Your task to perform on an android device: Go to accessibility settings Image 0: 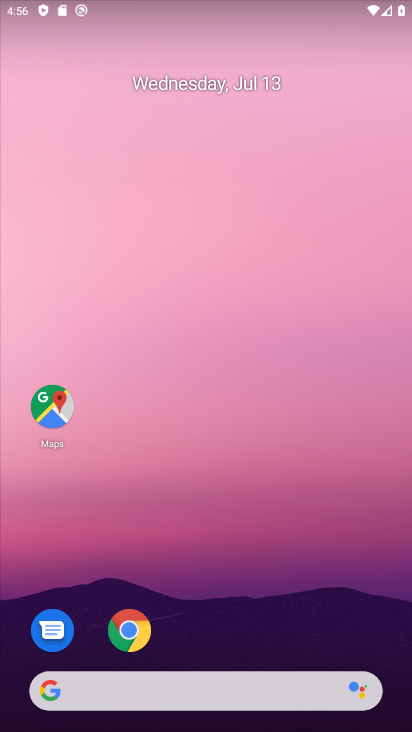
Step 0: drag from (241, 234) to (223, 56)
Your task to perform on an android device: Go to accessibility settings Image 1: 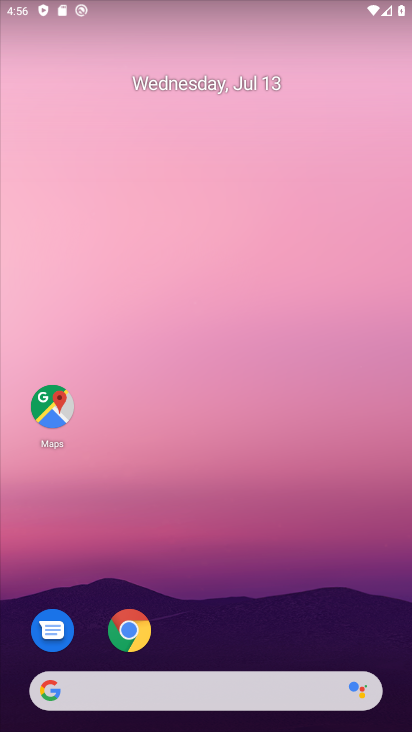
Step 1: drag from (193, 604) to (246, 47)
Your task to perform on an android device: Go to accessibility settings Image 2: 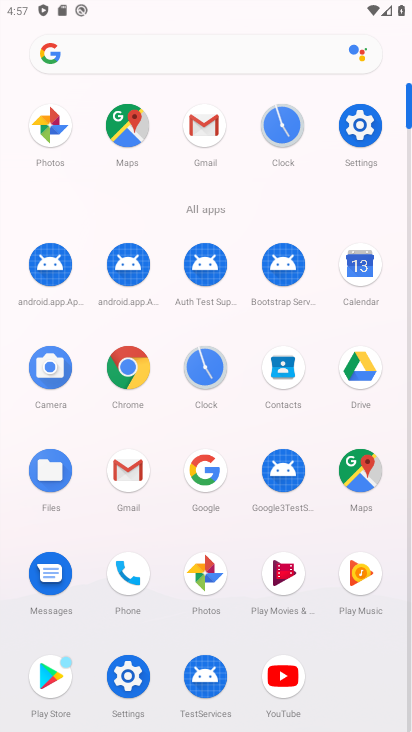
Step 2: click (353, 122)
Your task to perform on an android device: Go to accessibility settings Image 3: 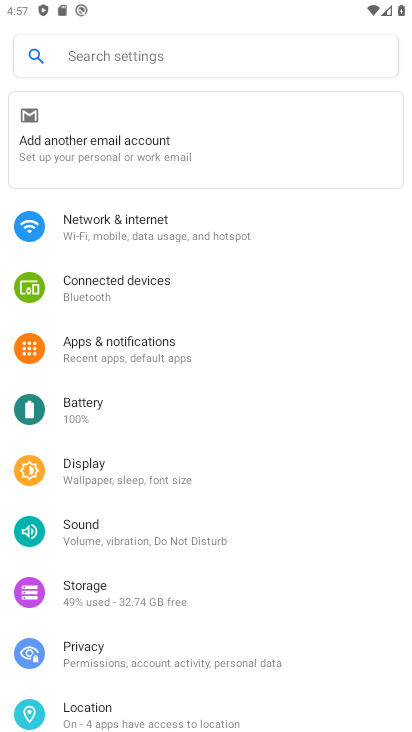
Step 3: drag from (120, 509) to (150, 32)
Your task to perform on an android device: Go to accessibility settings Image 4: 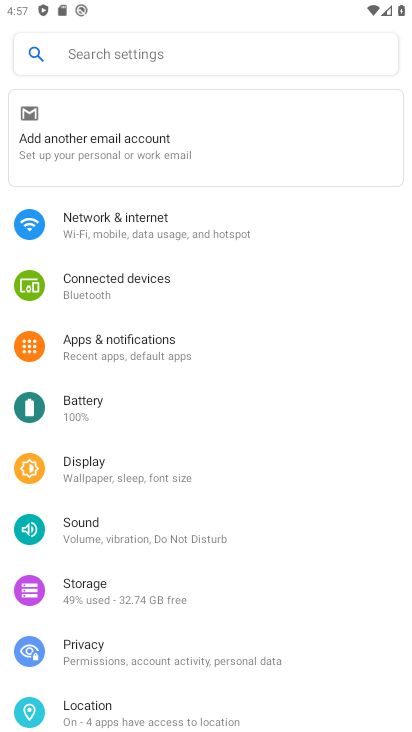
Step 4: drag from (81, 663) to (147, 481)
Your task to perform on an android device: Go to accessibility settings Image 5: 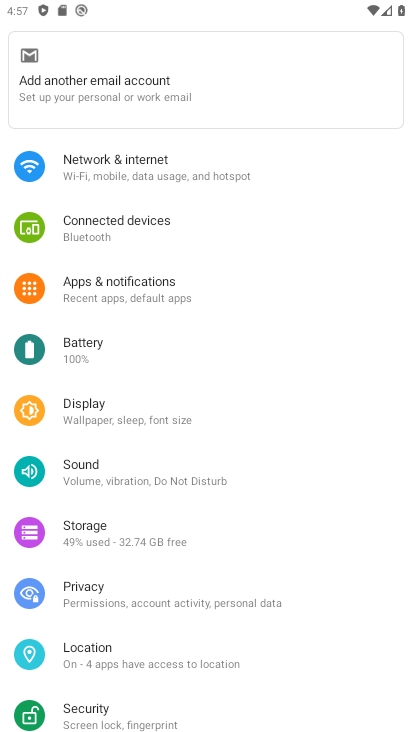
Step 5: drag from (114, 603) to (171, 90)
Your task to perform on an android device: Go to accessibility settings Image 6: 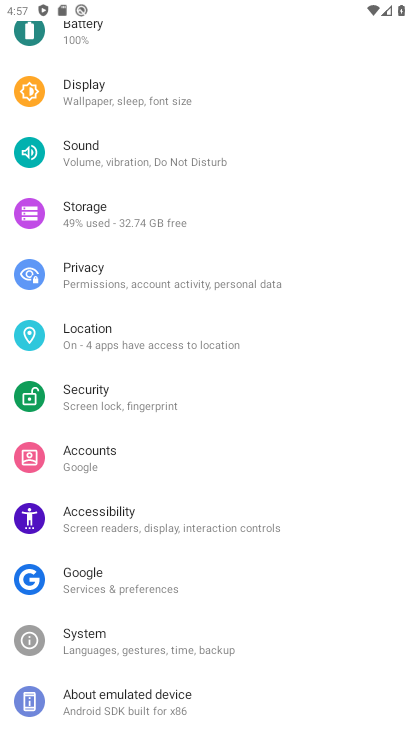
Step 6: click (136, 525)
Your task to perform on an android device: Go to accessibility settings Image 7: 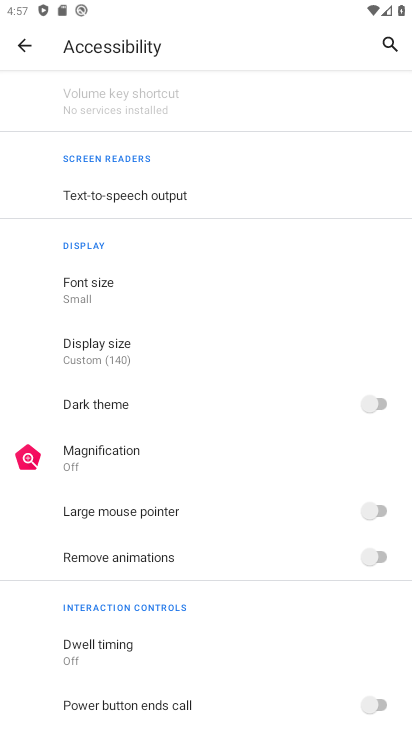
Step 7: task complete